Your task to perform on an android device: turn on the 12-hour format for clock Image 0: 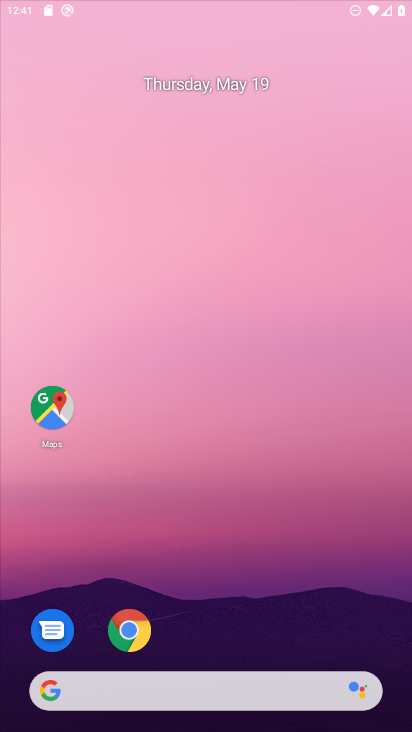
Step 0: drag from (251, 523) to (329, 17)
Your task to perform on an android device: turn on the 12-hour format for clock Image 1: 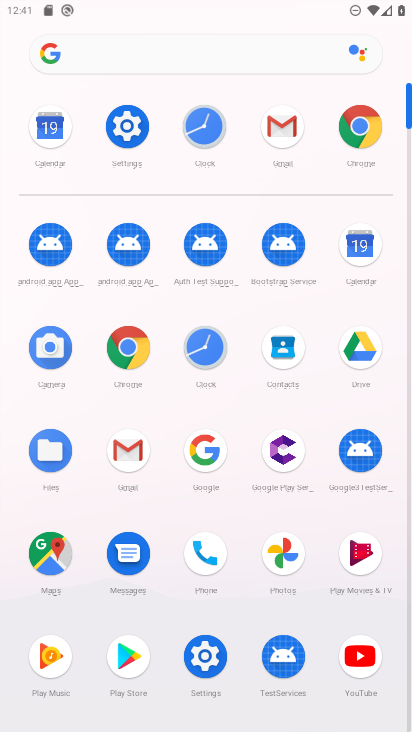
Step 1: click (206, 348)
Your task to perform on an android device: turn on the 12-hour format for clock Image 2: 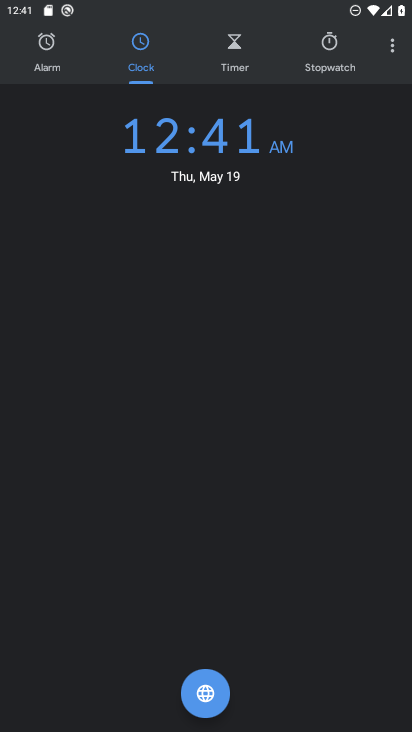
Step 2: click (390, 39)
Your task to perform on an android device: turn on the 12-hour format for clock Image 3: 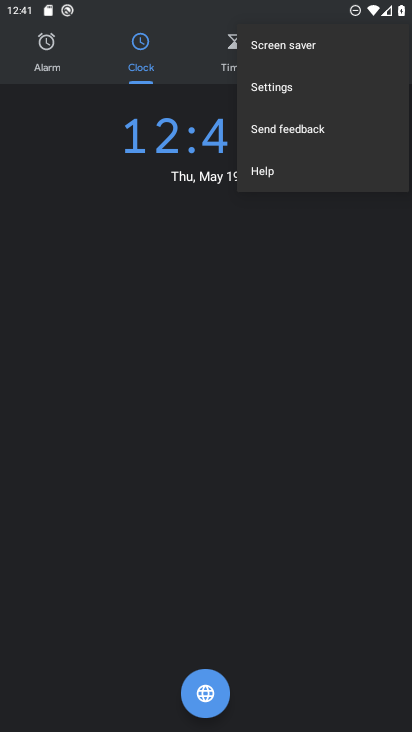
Step 3: click (292, 84)
Your task to perform on an android device: turn on the 12-hour format for clock Image 4: 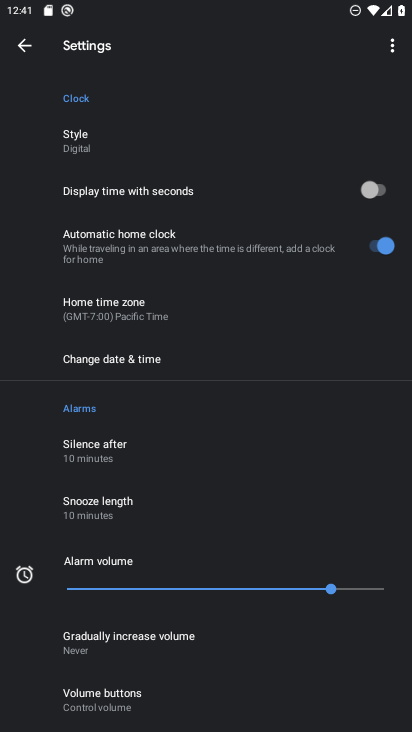
Step 4: click (124, 358)
Your task to perform on an android device: turn on the 12-hour format for clock Image 5: 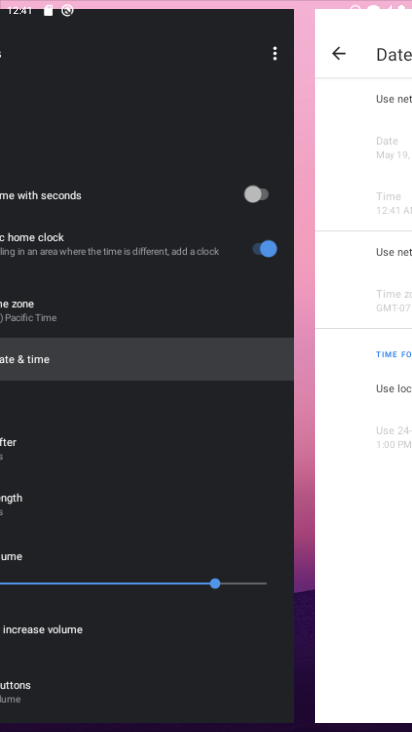
Step 5: task complete